Your task to perform on an android device: turn notification dots on Image 0: 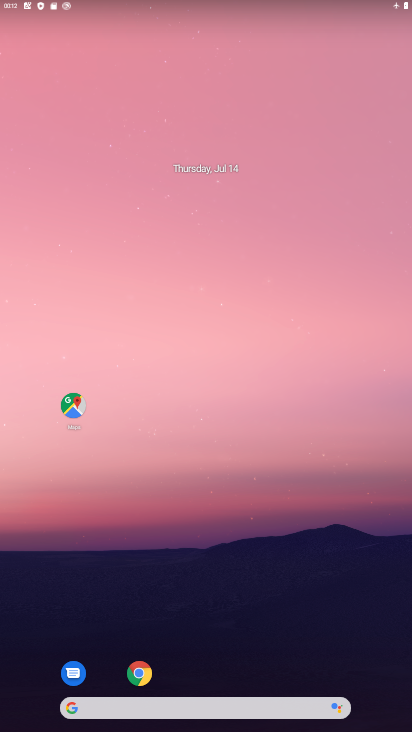
Step 0: drag from (200, 674) to (185, 247)
Your task to perform on an android device: turn notification dots on Image 1: 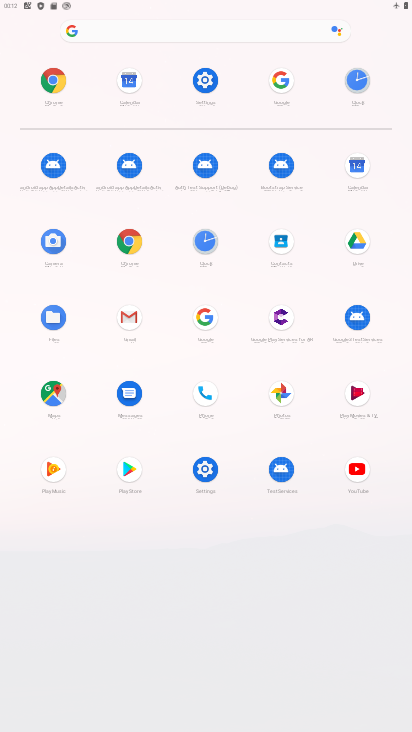
Step 1: click (203, 87)
Your task to perform on an android device: turn notification dots on Image 2: 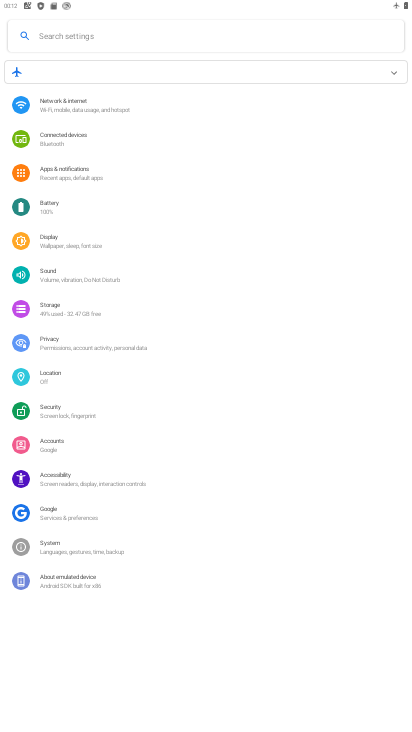
Step 2: click (84, 177)
Your task to perform on an android device: turn notification dots on Image 3: 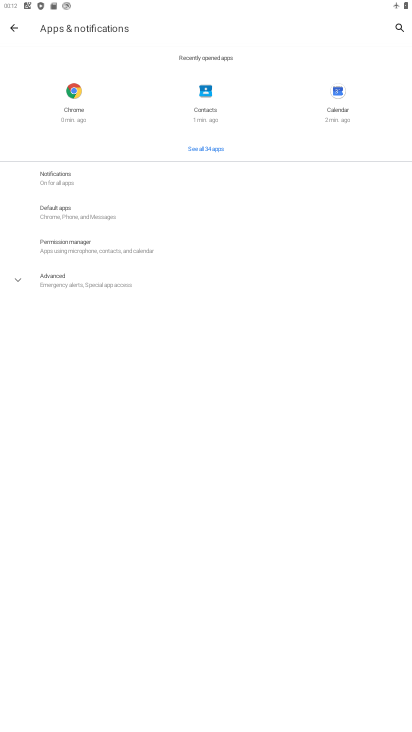
Step 3: click (132, 281)
Your task to perform on an android device: turn notification dots on Image 4: 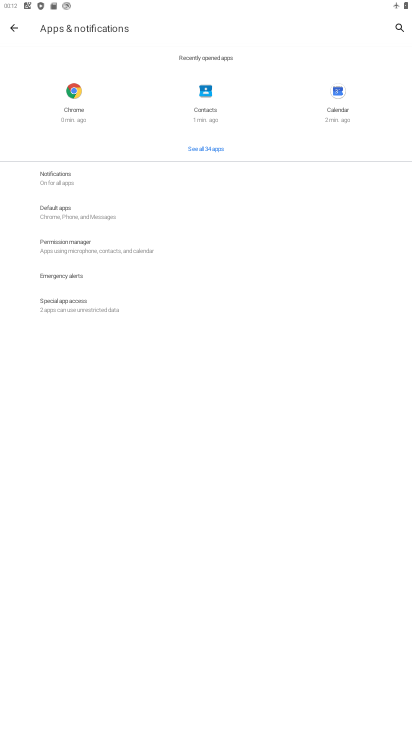
Step 4: click (58, 183)
Your task to perform on an android device: turn notification dots on Image 5: 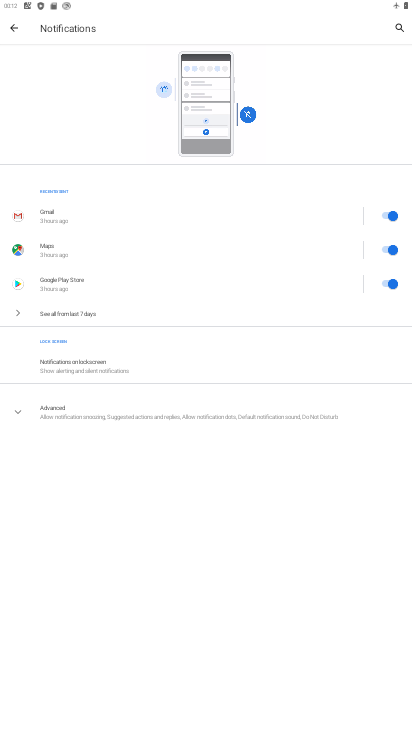
Step 5: click (133, 415)
Your task to perform on an android device: turn notification dots on Image 6: 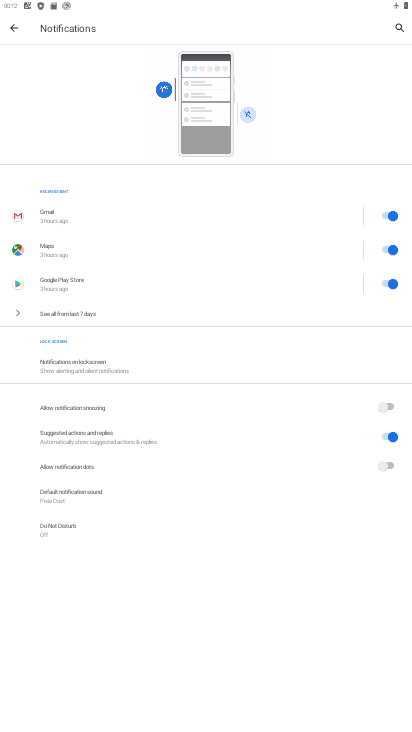
Step 6: click (390, 466)
Your task to perform on an android device: turn notification dots on Image 7: 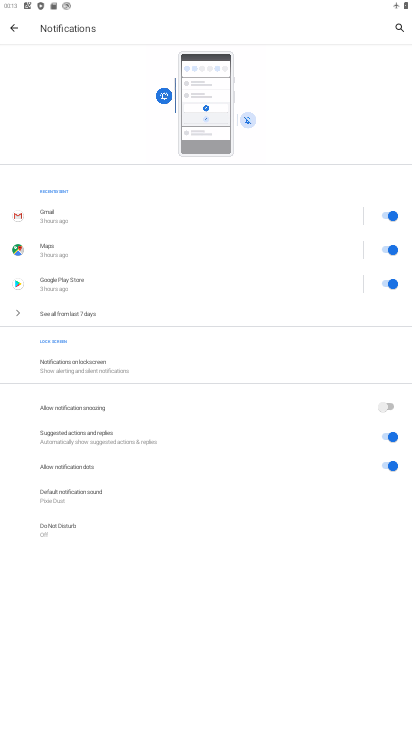
Step 7: task complete